Your task to perform on an android device: Open Wikipedia Image 0: 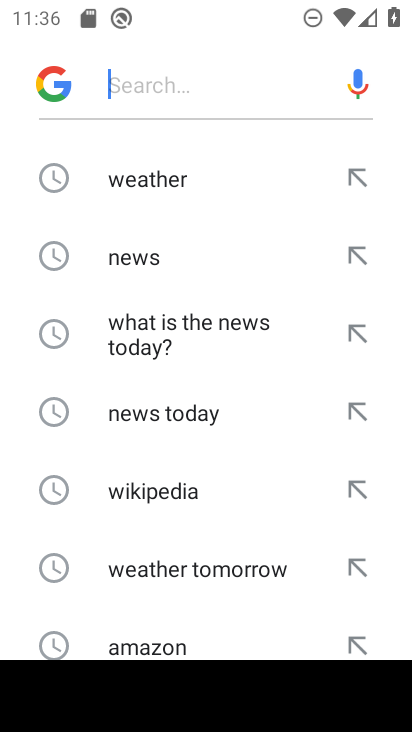
Step 0: press home button
Your task to perform on an android device: Open Wikipedia Image 1: 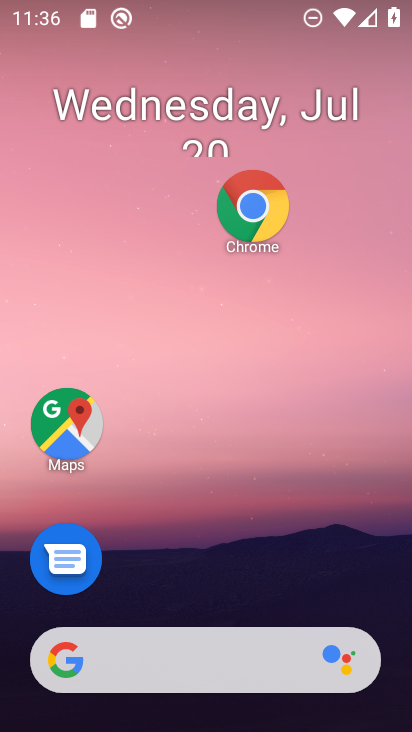
Step 1: drag from (229, 612) to (324, 127)
Your task to perform on an android device: Open Wikipedia Image 2: 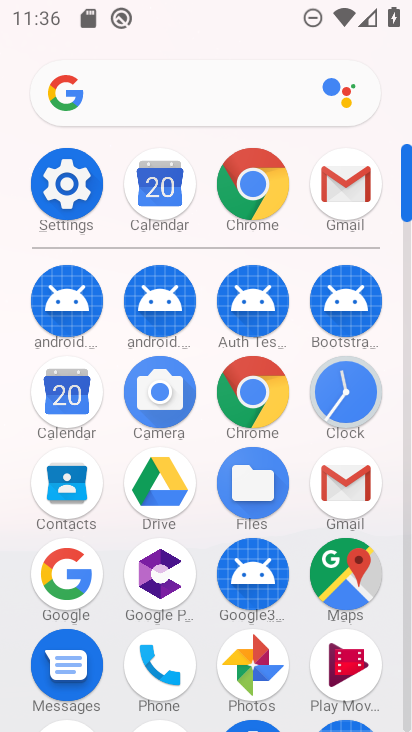
Step 2: click (255, 421)
Your task to perform on an android device: Open Wikipedia Image 3: 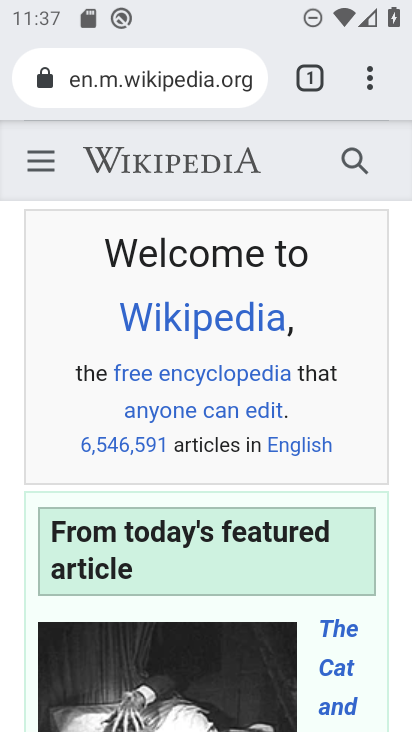
Step 3: task complete